Your task to perform on an android device: Check the weather Image 0: 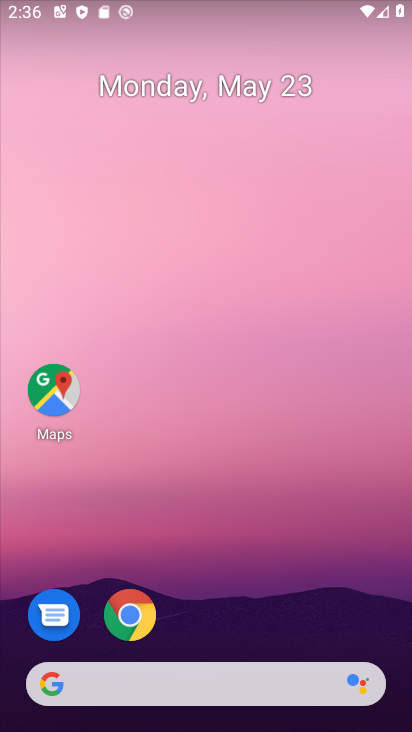
Step 0: click (266, 686)
Your task to perform on an android device: Check the weather Image 1: 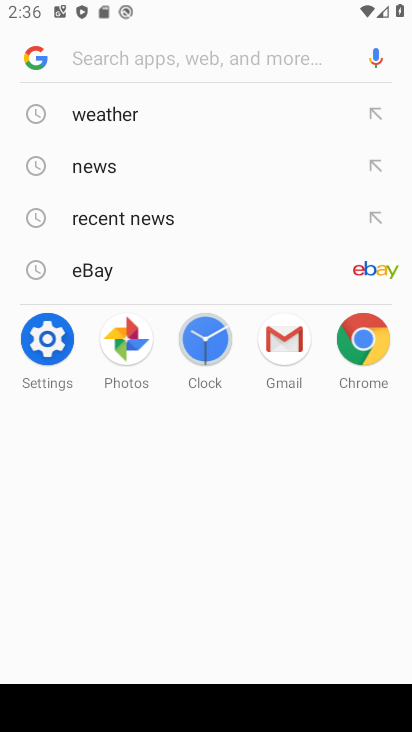
Step 1: click (178, 114)
Your task to perform on an android device: Check the weather Image 2: 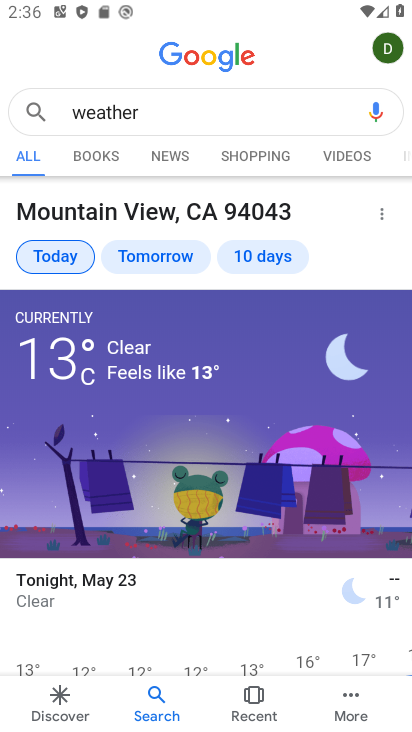
Step 2: task complete